Your task to perform on an android device: turn off smart reply in the gmail app Image 0: 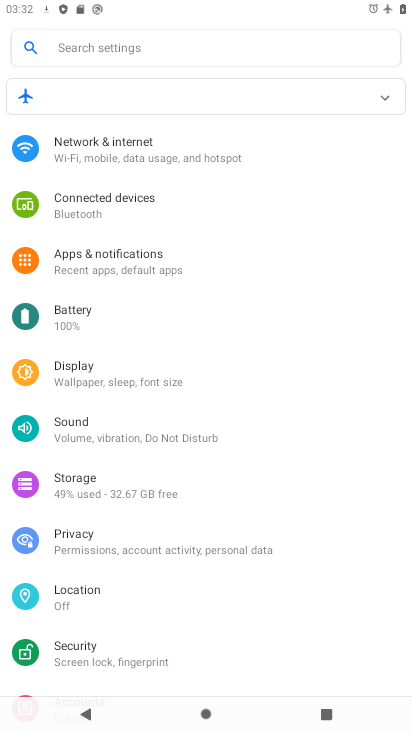
Step 0: press home button
Your task to perform on an android device: turn off smart reply in the gmail app Image 1: 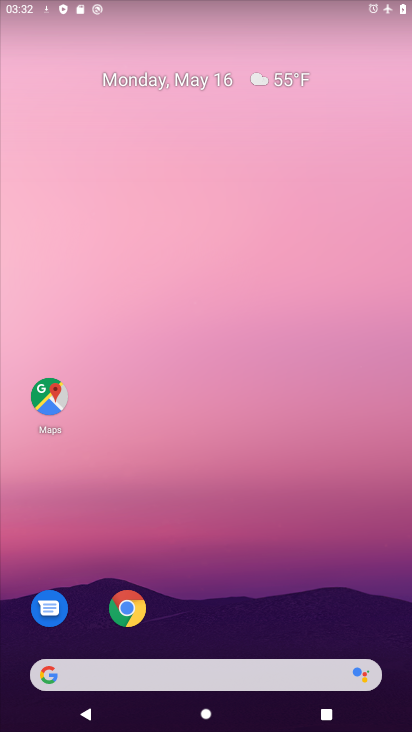
Step 1: drag from (218, 618) to (176, 223)
Your task to perform on an android device: turn off smart reply in the gmail app Image 2: 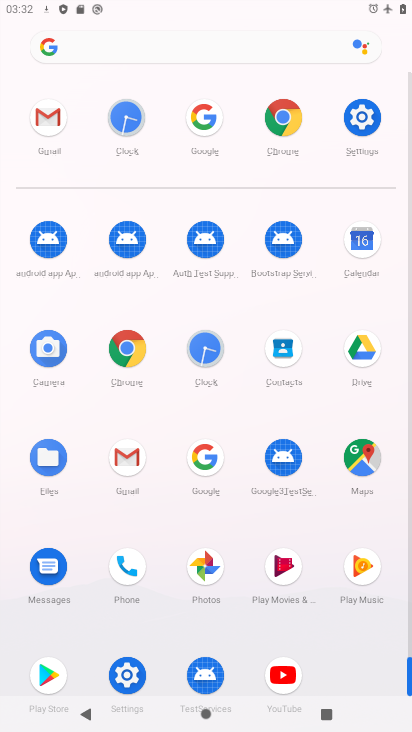
Step 2: click (37, 117)
Your task to perform on an android device: turn off smart reply in the gmail app Image 3: 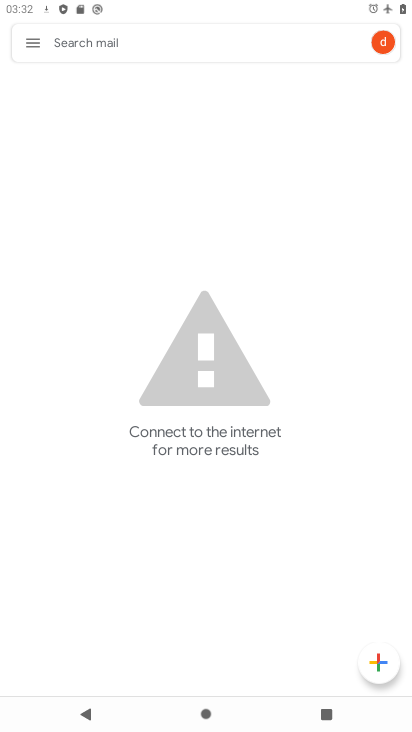
Step 3: click (35, 49)
Your task to perform on an android device: turn off smart reply in the gmail app Image 4: 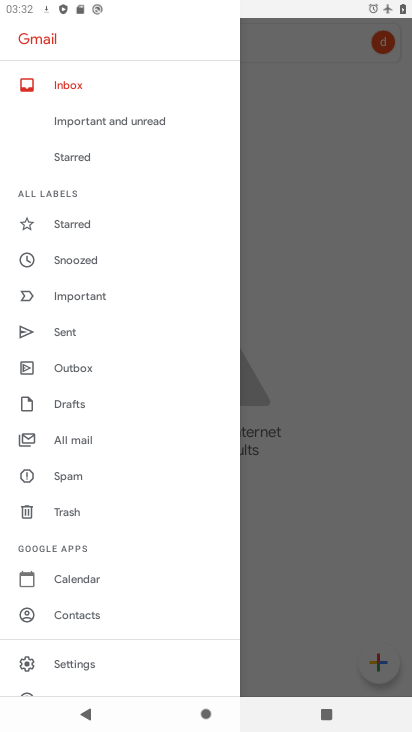
Step 4: drag from (114, 642) to (125, 460)
Your task to perform on an android device: turn off smart reply in the gmail app Image 5: 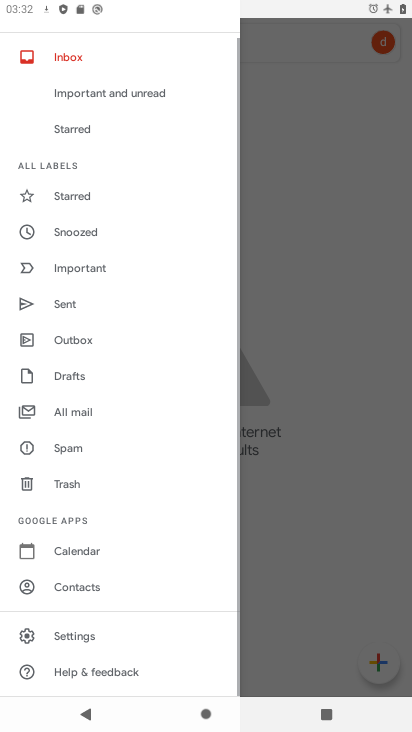
Step 5: click (95, 629)
Your task to perform on an android device: turn off smart reply in the gmail app Image 6: 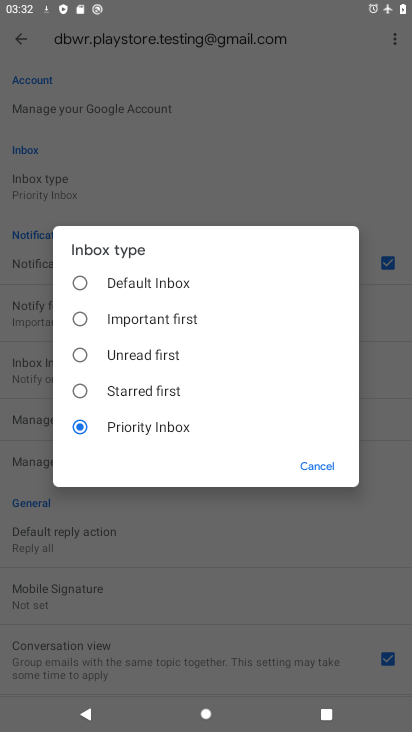
Step 6: click (314, 470)
Your task to perform on an android device: turn off smart reply in the gmail app Image 7: 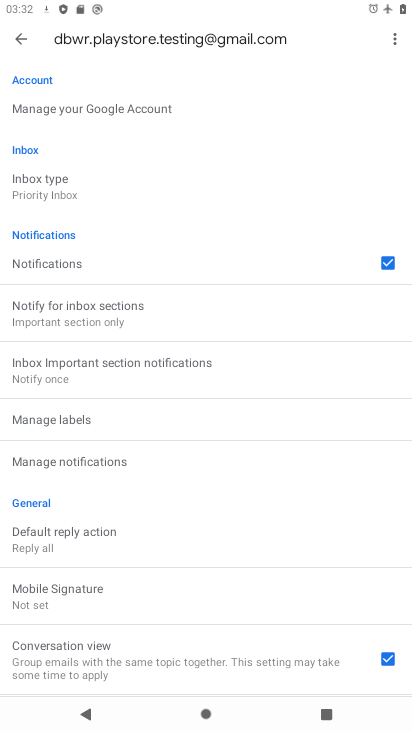
Step 7: drag from (178, 640) to (216, 349)
Your task to perform on an android device: turn off smart reply in the gmail app Image 8: 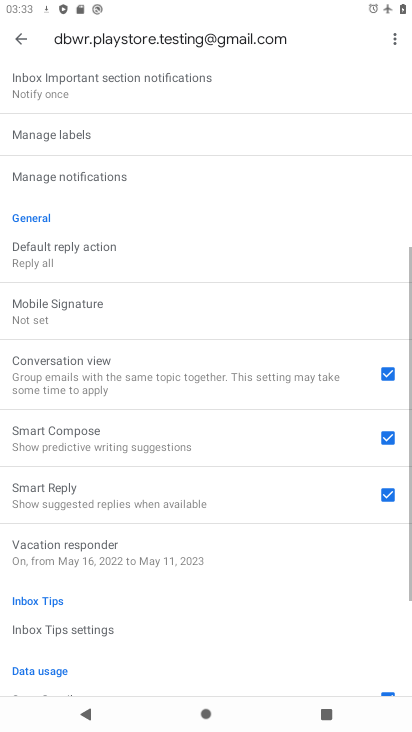
Step 8: drag from (194, 562) to (214, 330)
Your task to perform on an android device: turn off smart reply in the gmail app Image 9: 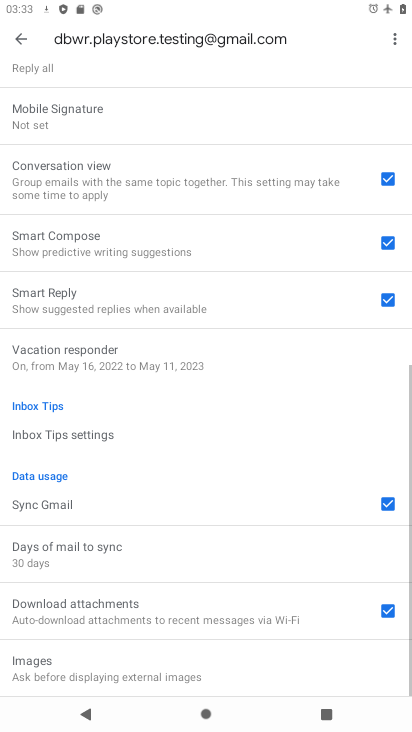
Step 9: drag from (217, 528) to (218, 420)
Your task to perform on an android device: turn off smart reply in the gmail app Image 10: 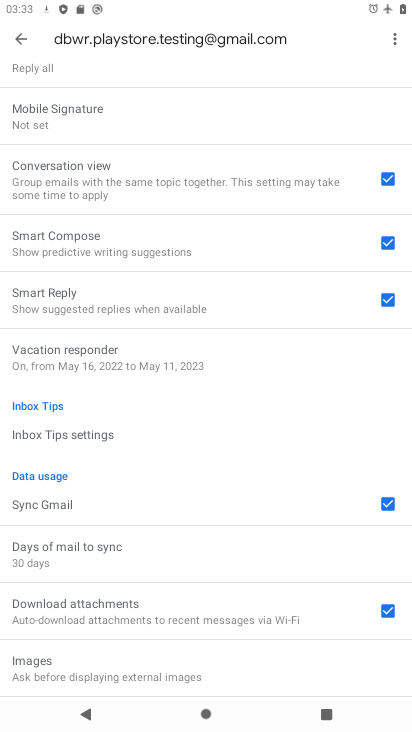
Step 10: click (376, 300)
Your task to perform on an android device: turn off smart reply in the gmail app Image 11: 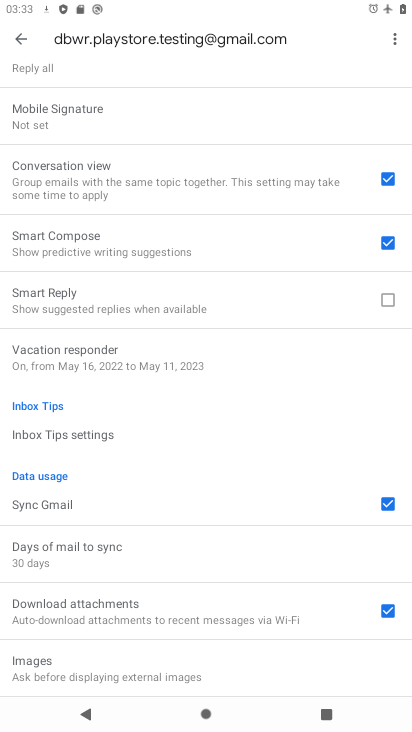
Step 11: task complete